Your task to perform on an android device: turn on wifi Image 0: 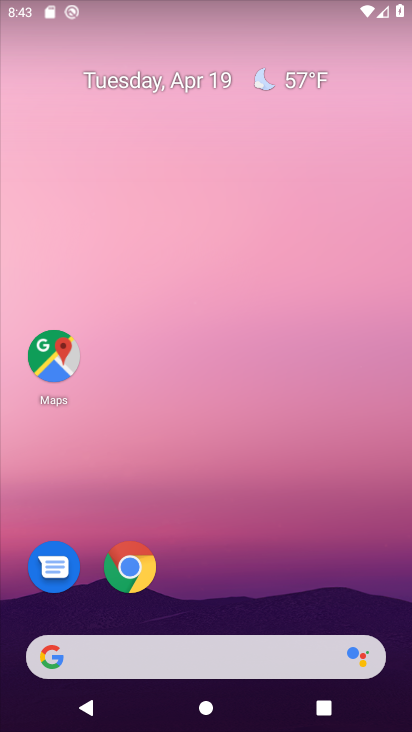
Step 0: drag from (320, 562) to (278, 93)
Your task to perform on an android device: turn on wifi Image 1: 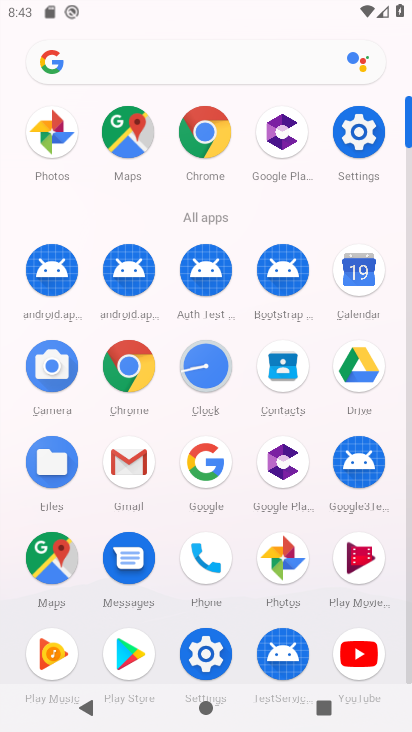
Step 1: click (348, 141)
Your task to perform on an android device: turn on wifi Image 2: 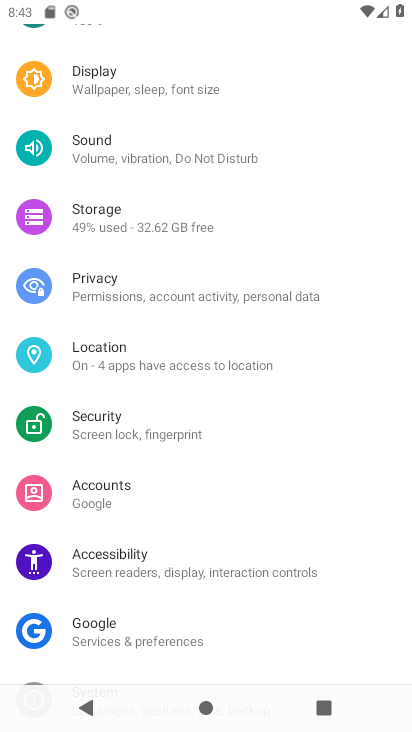
Step 2: drag from (211, 137) to (220, 493)
Your task to perform on an android device: turn on wifi Image 3: 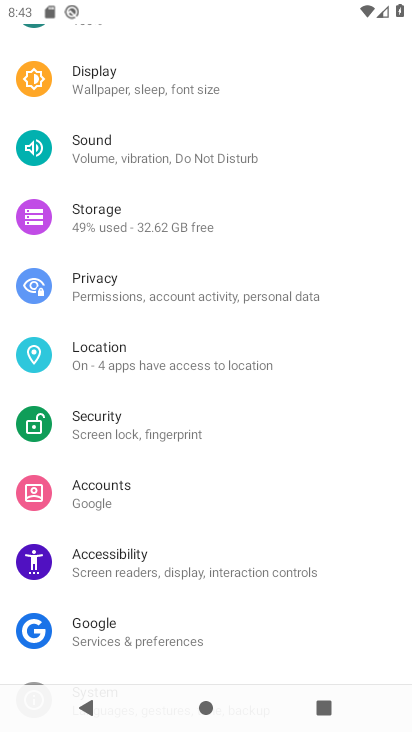
Step 3: drag from (219, 141) to (240, 588)
Your task to perform on an android device: turn on wifi Image 4: 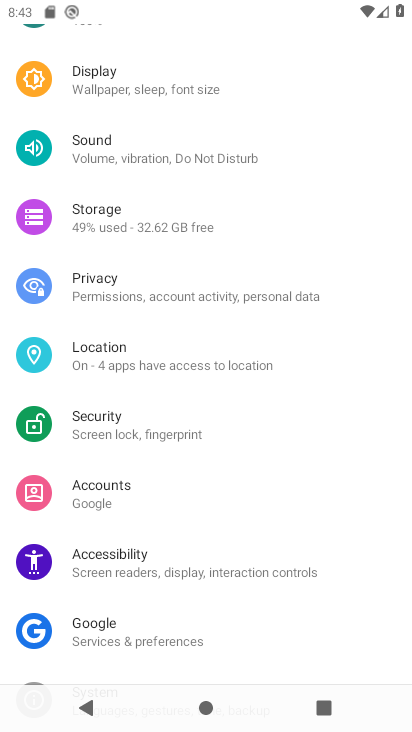
Step 4: drag from (226, 201) to (282, 546)
Your task to perform on an android device: turn on wifi Image 5: 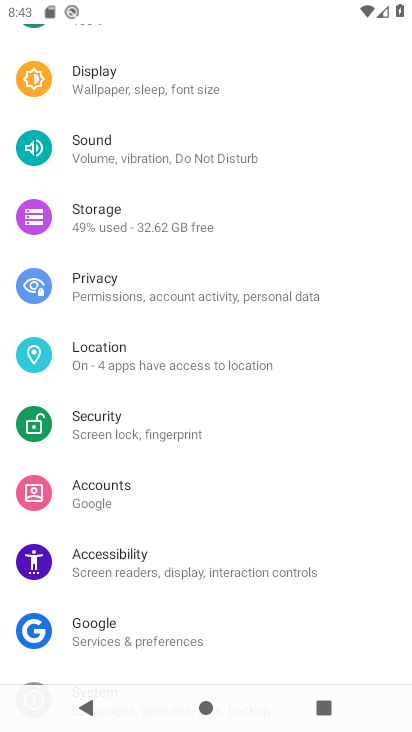
Step 5: drag from (112, 130) to (125, 569)
Your task to perform on an android device: turn on wifi Image 6: 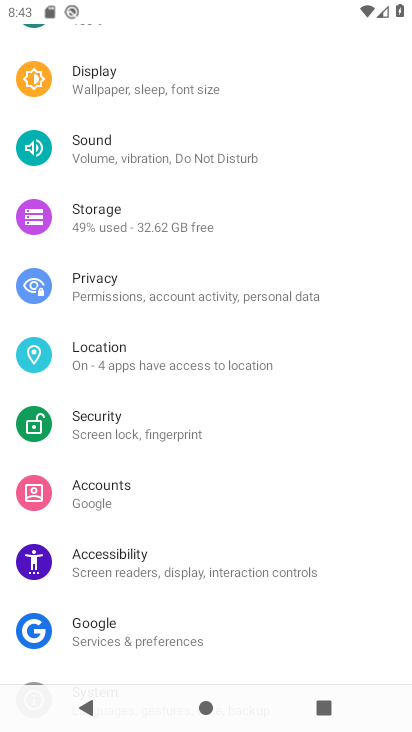
Step 6: drag from (187, 124) to (204, 536)
Your task to perform on an android device: turn on wifi Image 7: 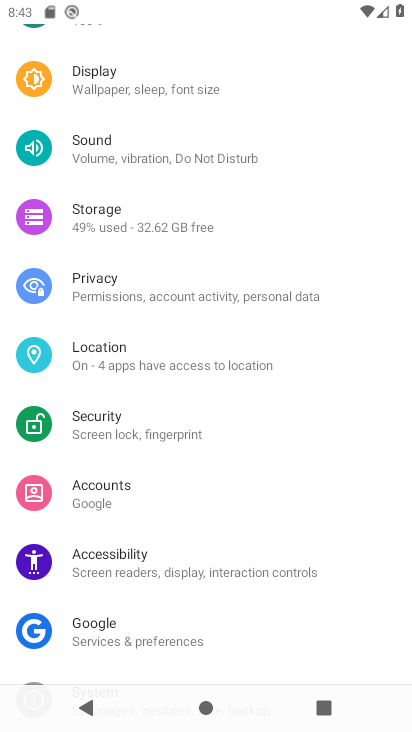
Step 7: drag from (221, 153) to (226, 518)
Your task to perform on an android device: turn on wifi Image 8: 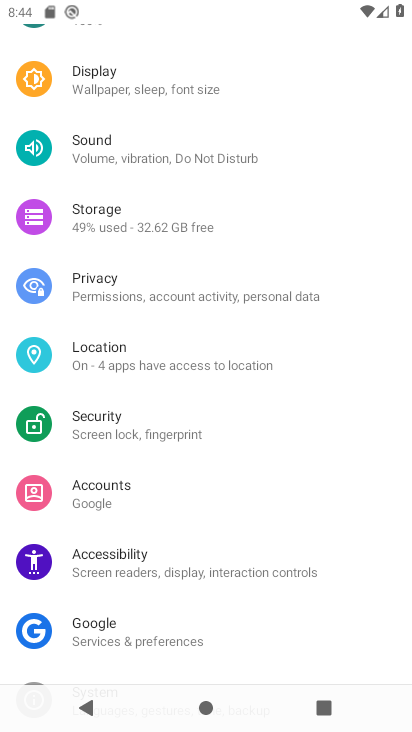
Step 8: drag from (268, 538) to (301, 91)
Your task to perform on an android device: turn on wifi Image 9: 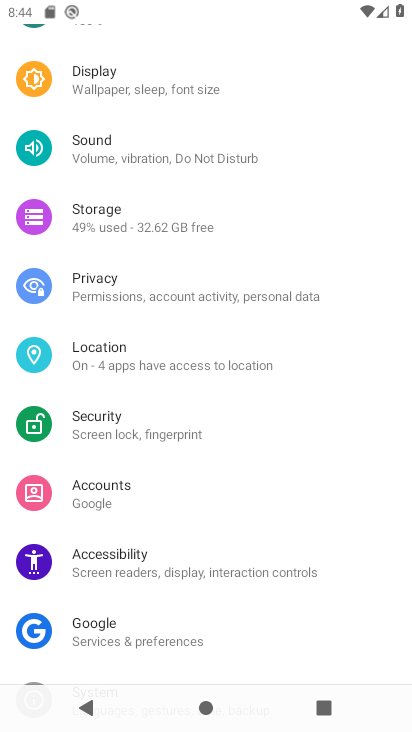
Step 9: drag from (163, 228) to (227, 593)
Your task to perform on an android device: turn on wifi Image 10: 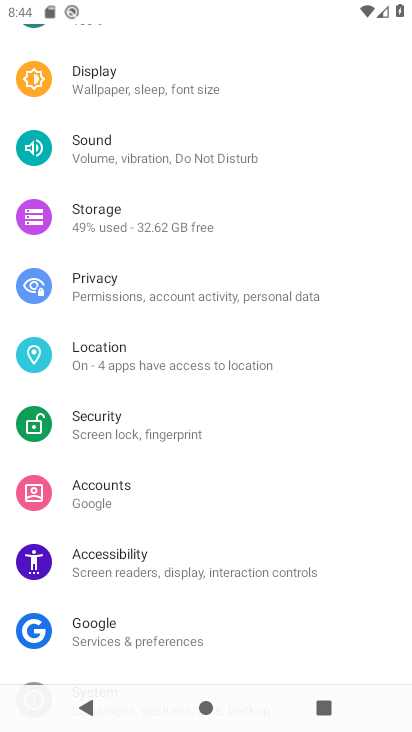
Step 10: drag from (162, 176) to (254, 612)
Your task to perform on an android device: turn on wifi Image 11: 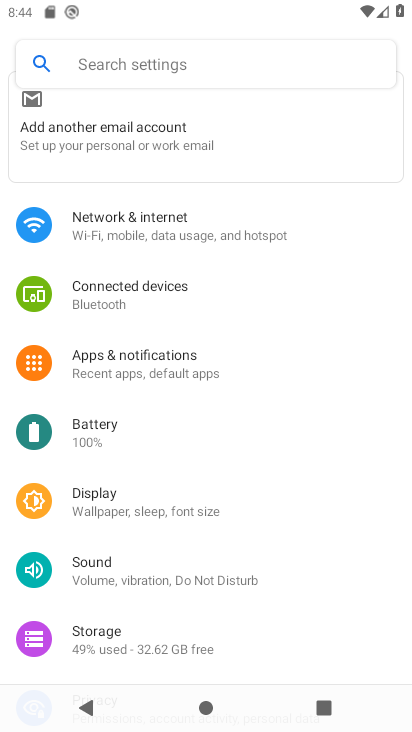
Step 11: click (113, 223)
Your task to perform on an android device: turn on wifi Image 12: 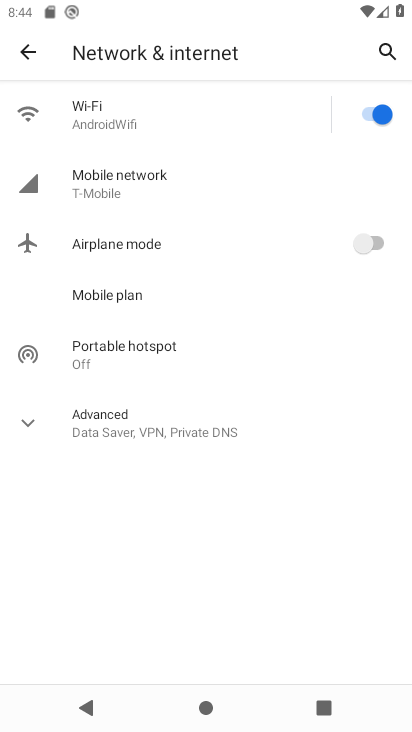
Step 12: task complete